Your task to perform on an android device: toggle airplane mode Image 0: 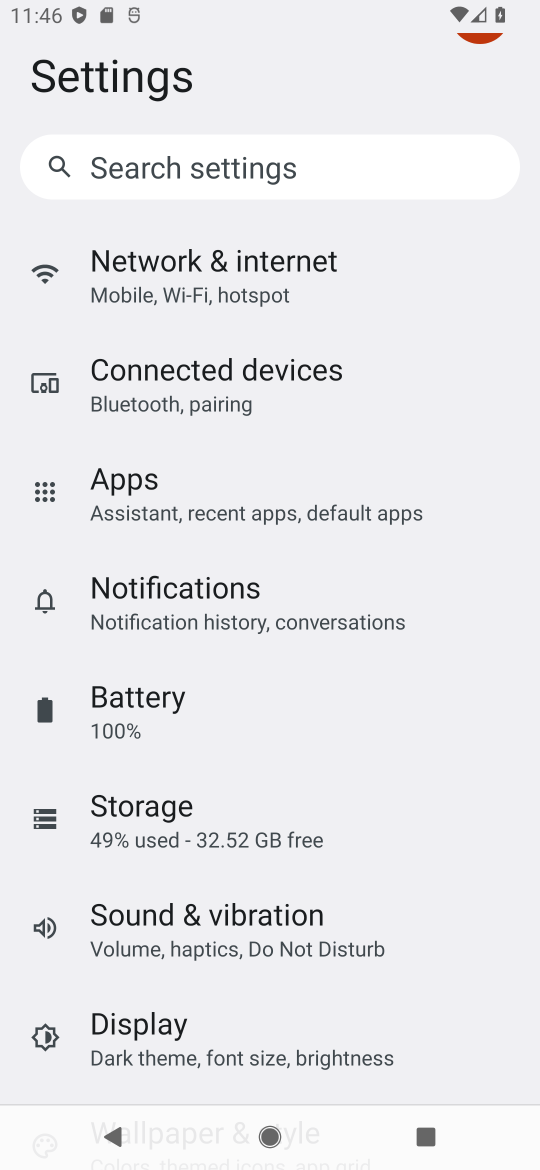
Step 0: press home button
Your task to perform on an android device: toggle airplane mode Image 1: 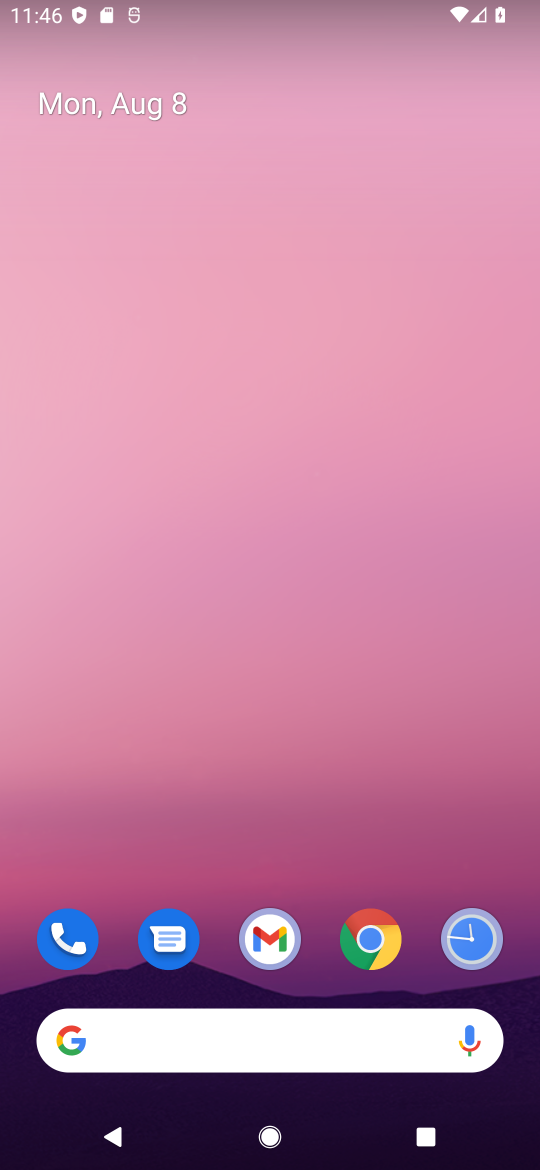
Step 1: drag from (211, 1050) to (323, 52)
Your task to perform on an android device: toggle airplane mode Image 2: 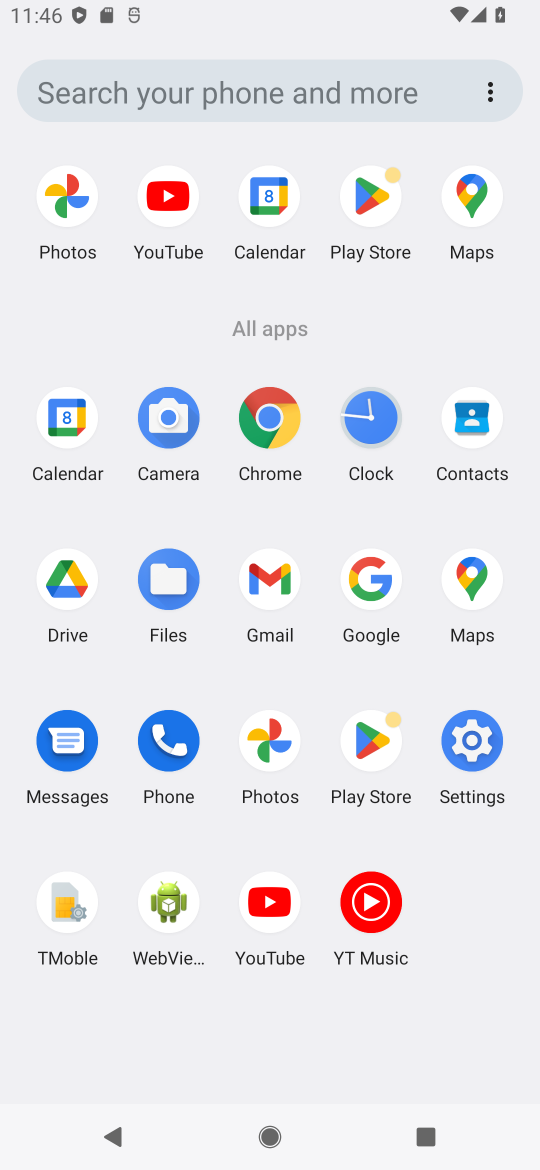
Step 2: click (470, 739)
Your task to perform on an android device: toggle airplane mode Image 3: 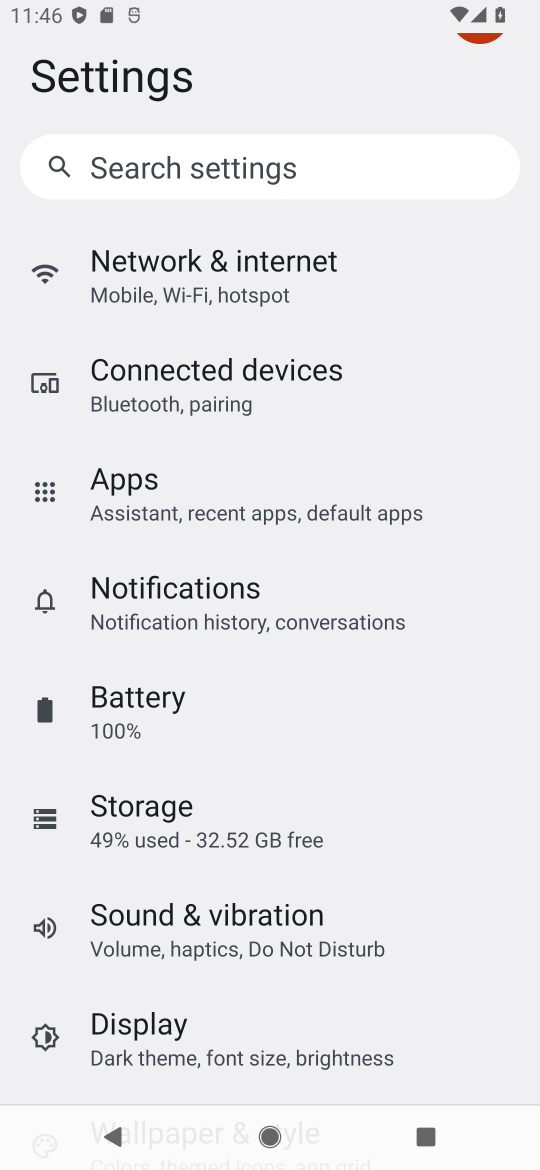
Step 3: click (202, 287)
Your task to perform on an android device: toggle airplane mode Image 4: 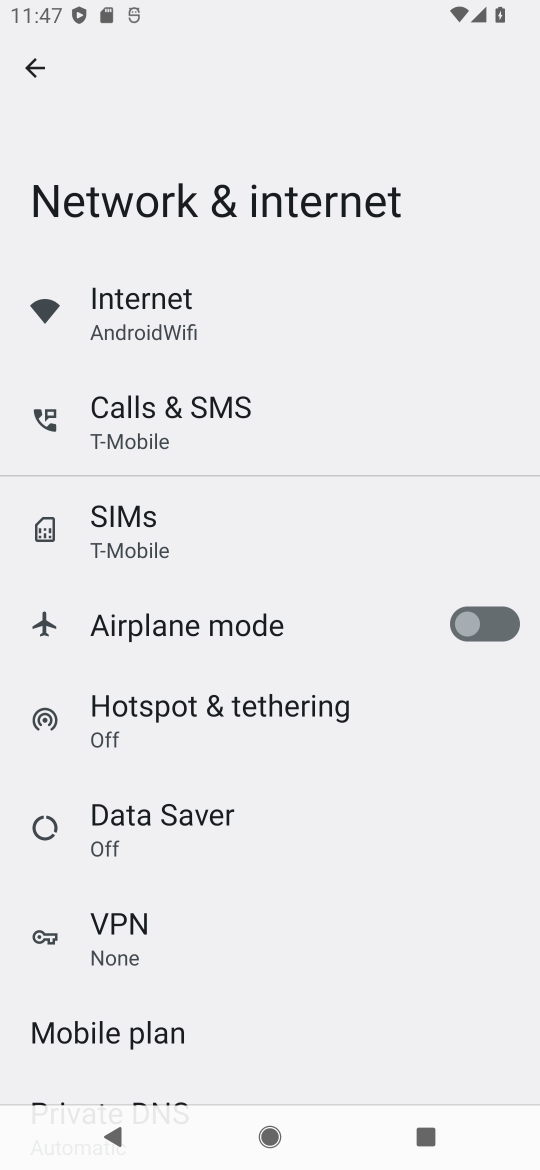
Step 4: click (459, 618)
Your task to perform on an android device: toggle airplane mode Image 5: 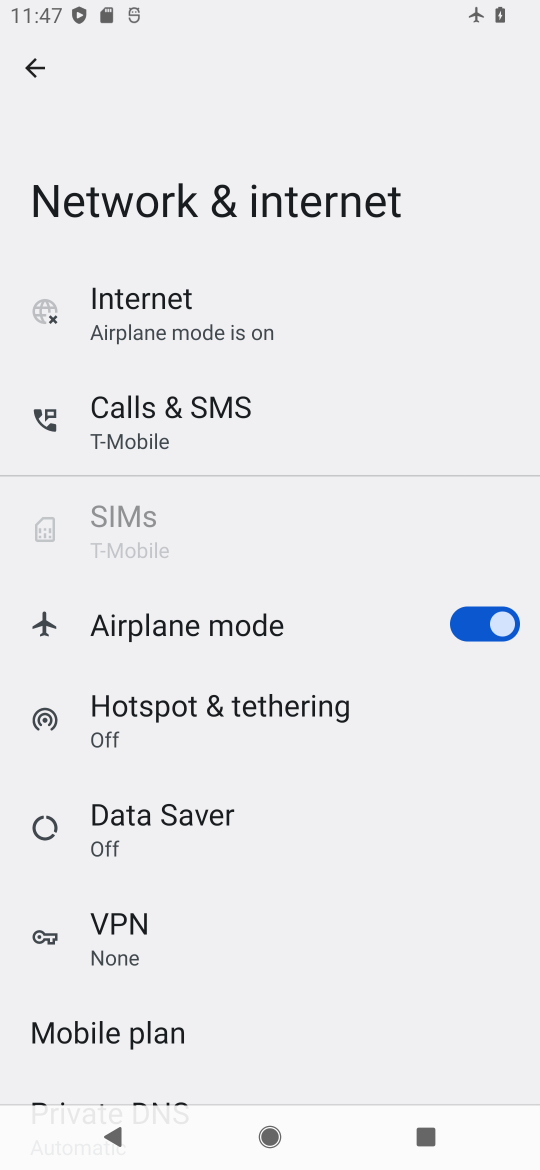
Step 5: task complete